Your task to perform on an android device: turn off location Image 0: 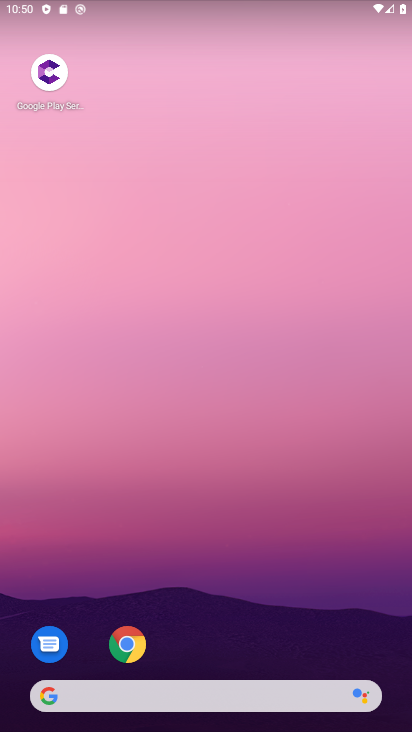
Step 0: drag from (353, 631) to (185, 33)
Your task to perform on an android device: turn off location Image 1: 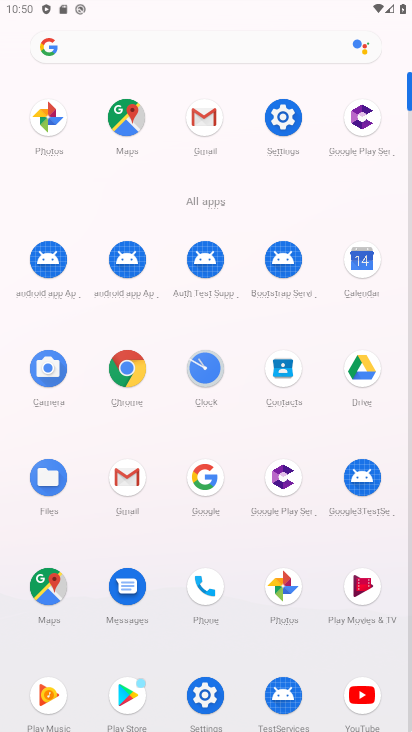
Step 1: click (197, 698)
Your task to perform on an android device: turn off location Image 2: 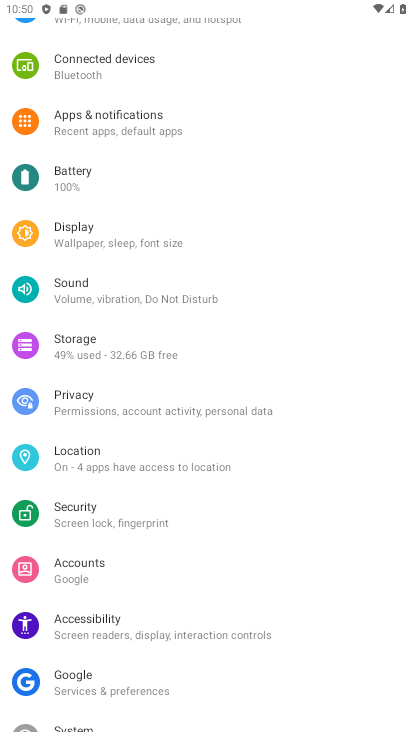
Step 2: click (105, 453)
Your task to perform on an android device: turn off location Image 3: 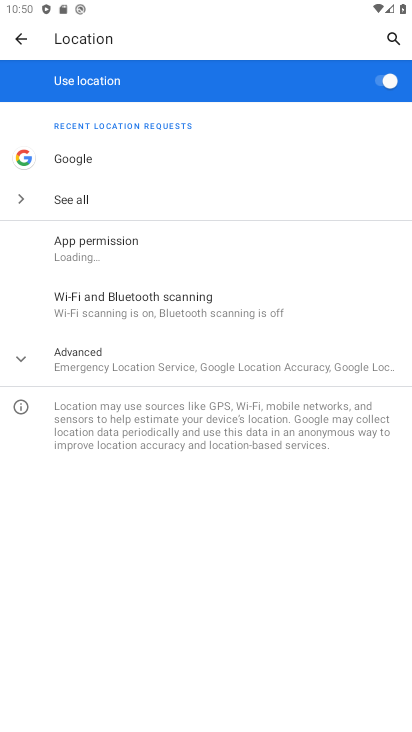
Step 3: click (382, 86)
Your task to perform on an android device: turn off location Image 4: 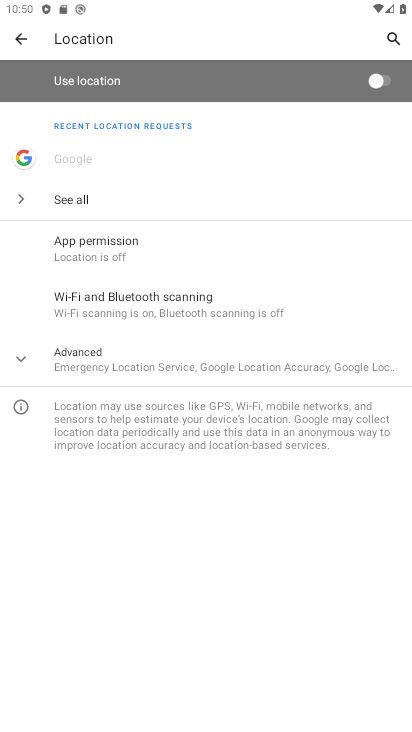
Step 4: task complete